Your task to perform on an android device: Go to Reddit.com Image 0: 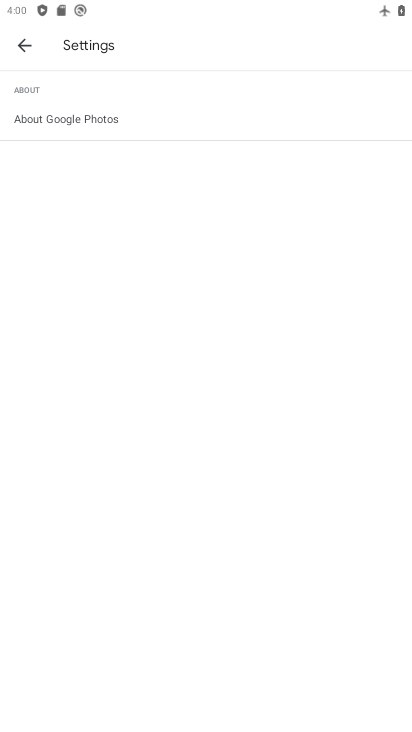
Step 0: press back button
Your task to perform on an android device: Go to Reddit.com Image 1: 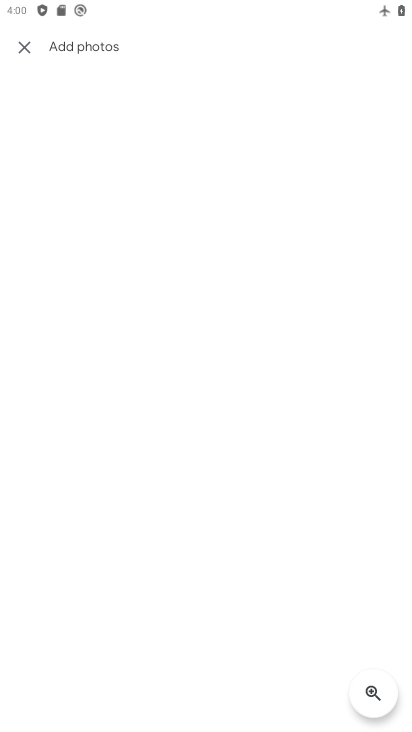
Step 1: press back button
Your task to perform on an android device: Go to Reddit.com Image 2: 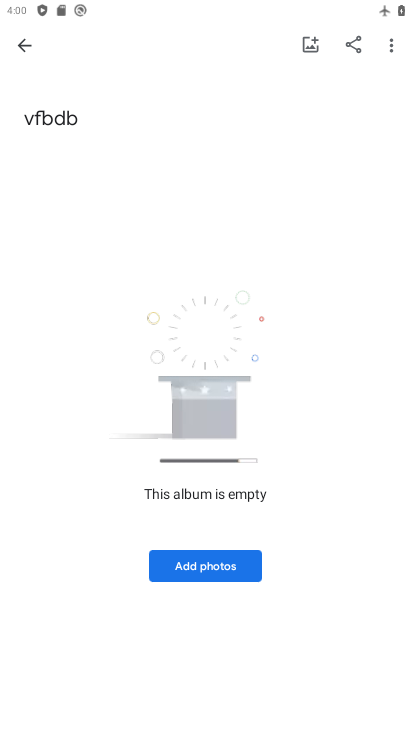
Step 2: press home button
Your task to perform on an android device: Go to Reddit.com Image 3: 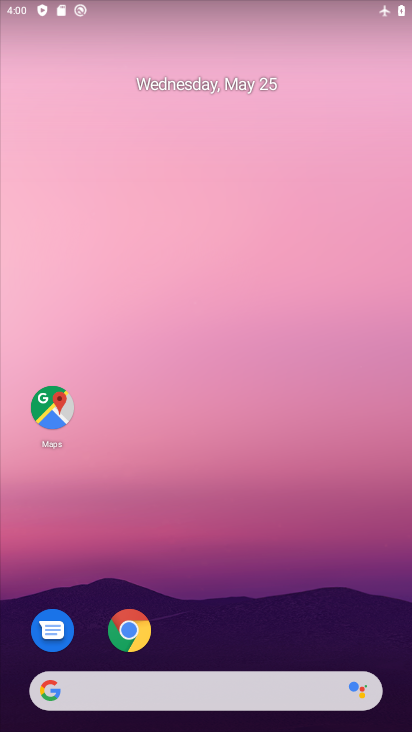
Step 3: click (125, 634)
Your task to perform on an android device: Go to Reddit.com Image 4: 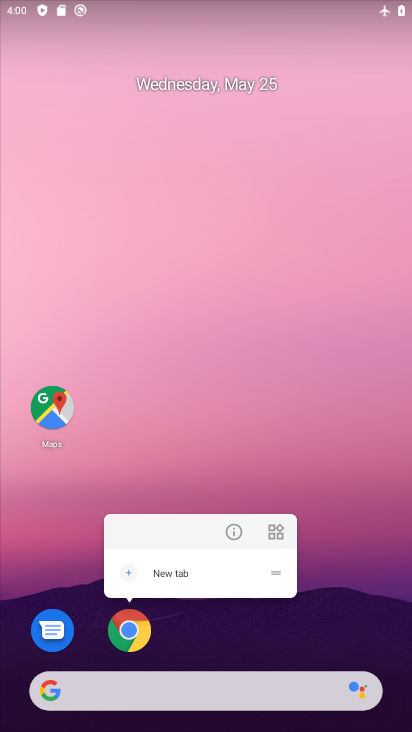
Step 4: click (127, 636)
Your task to perform on an android device: Go to Reddit.com Image 5: 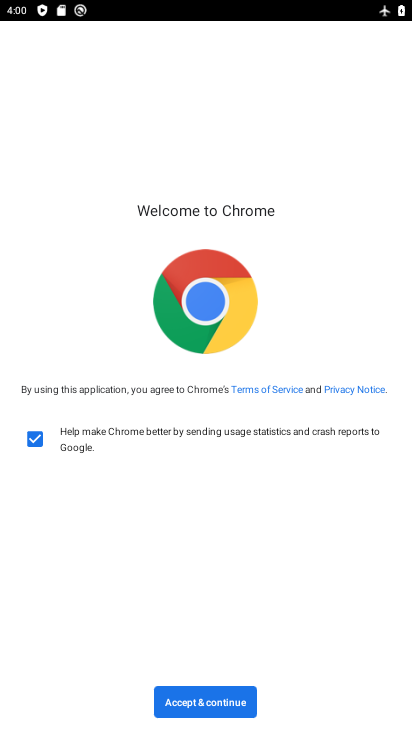
Step 5: click (211, 702)
Your task to perform on an android device: Go to Reddit.com Image 6: 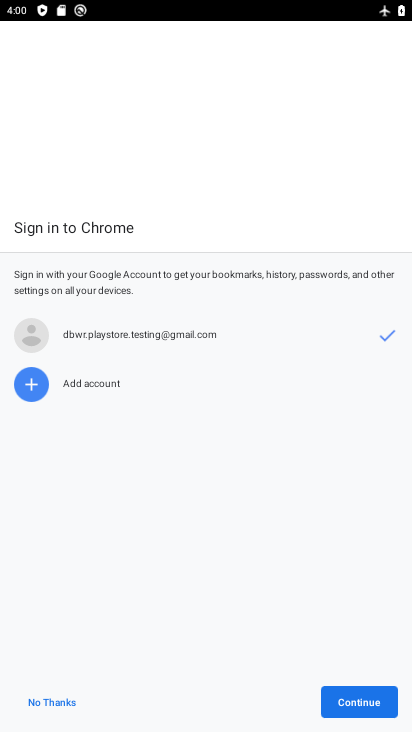
Step 6: click (388, 698)
Your task to perform on an android device: Go to Reddit.com Image 7: 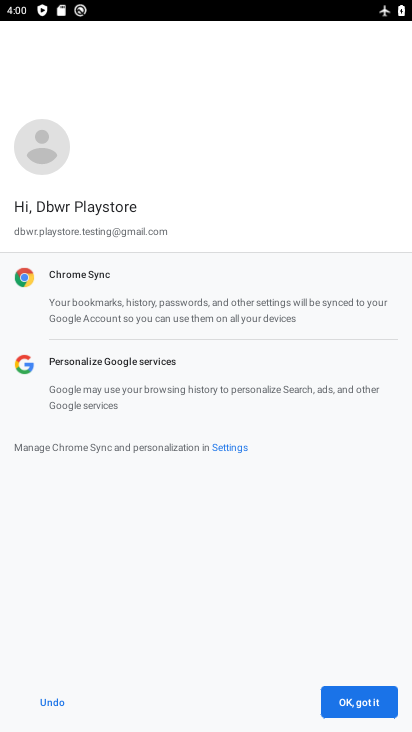
Step 7: click (348, 703)
Your task to perform on an android device: Go to Reddit.com Image 8: 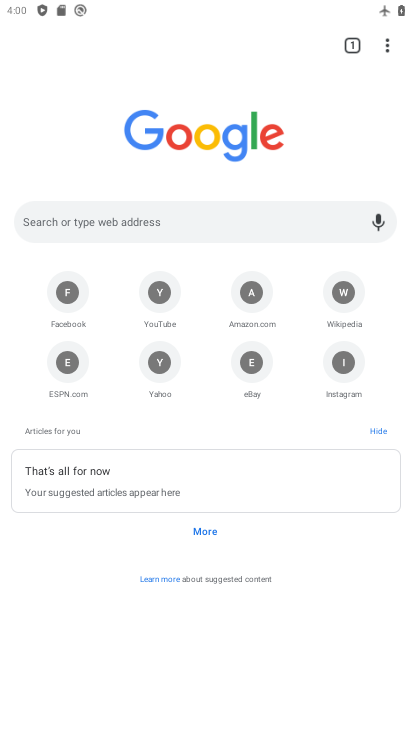
Step 8: click (106, 215)
Your task to perform on an android device: Go to Reddit.com Image 9: 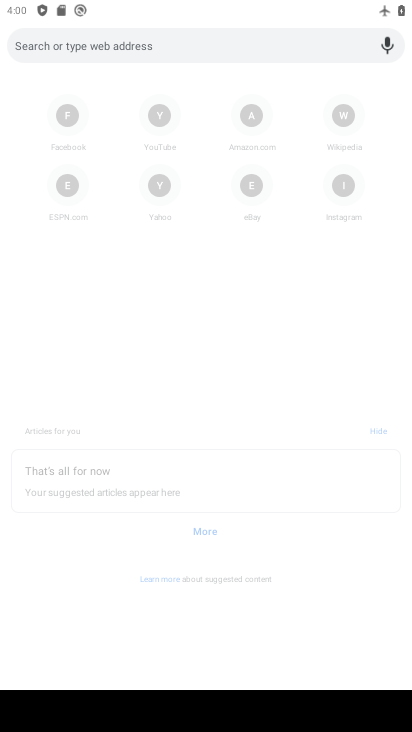
Step 9: type "reddit.com"
Your task to perform on an android device: Go to Reddit.com Image 10: 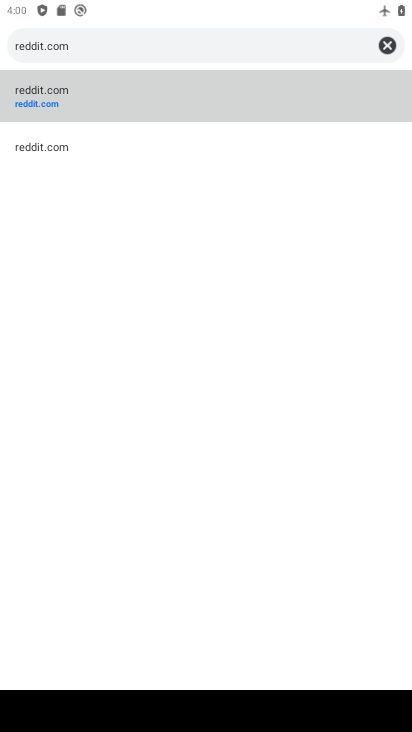
Step 10: click (81, 99)
Your task to perform on an android device: Go to Reddit.com Image 11: 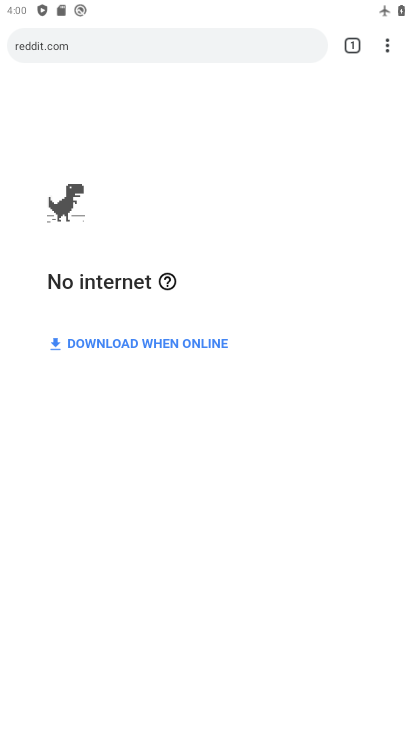
Step 11: drag from (316, 8) to (300, 517)
Your task to perform on an android device: Go to Reddit.com Image 12: 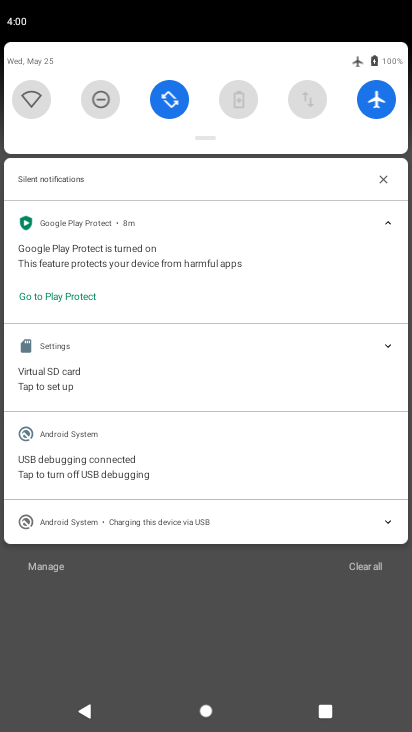
Step 12: click (389, 96)
Your task to perform on an android device: Go to Reddit.com Image 13: 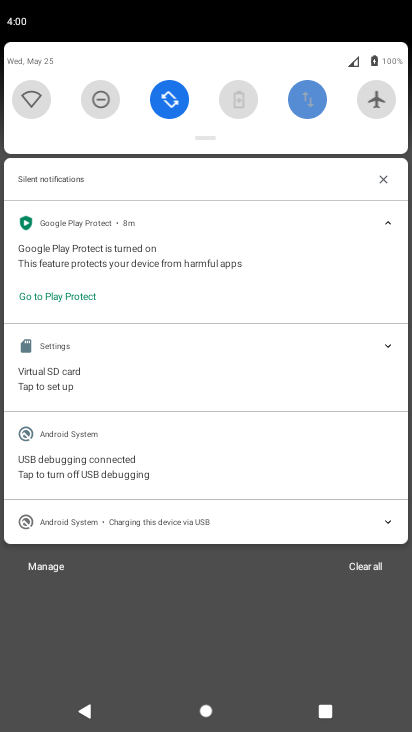
Step 13: click (252, 612)
Your task to perform on an android device: Go to Reddit.com Image 14: 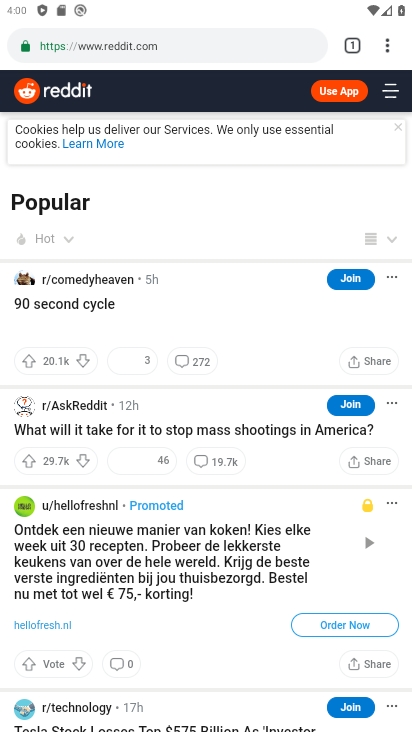
Step 14: task complete